Your task to perform on an android device: Do I have any events today? Image 0: 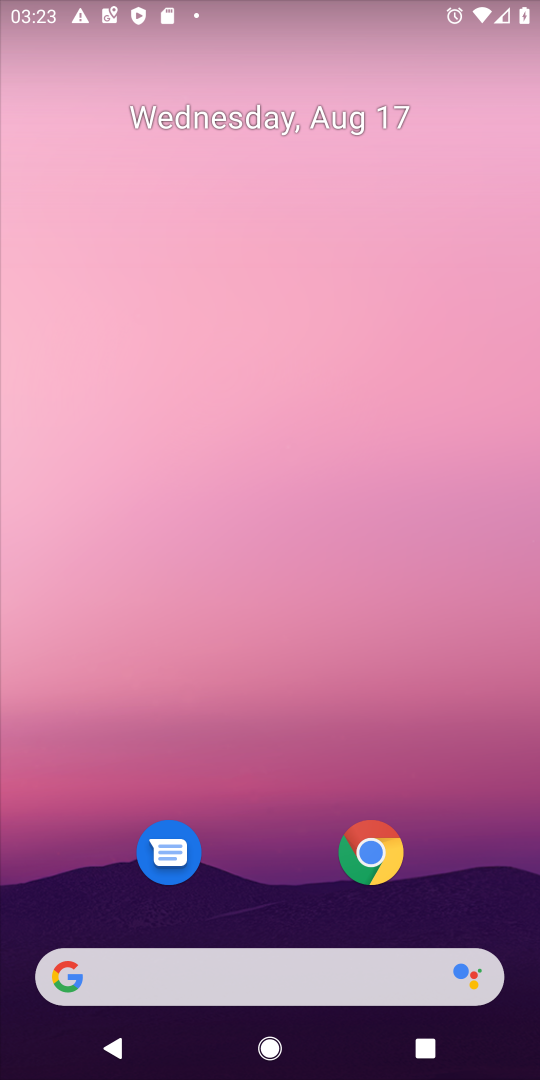
Step 0: drag from (245, 853) to (295, 0)
Your task to perform on an android device: Do I have any events today? Image 1: 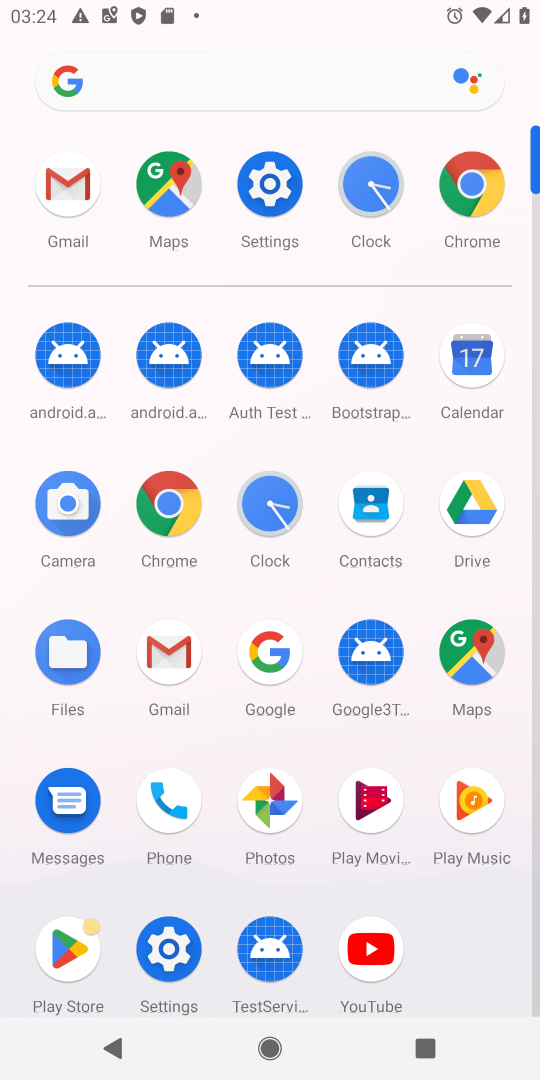
Step 1: click (480, 361)
Your task to perform on an android device: Do I have any events today? Image 2: 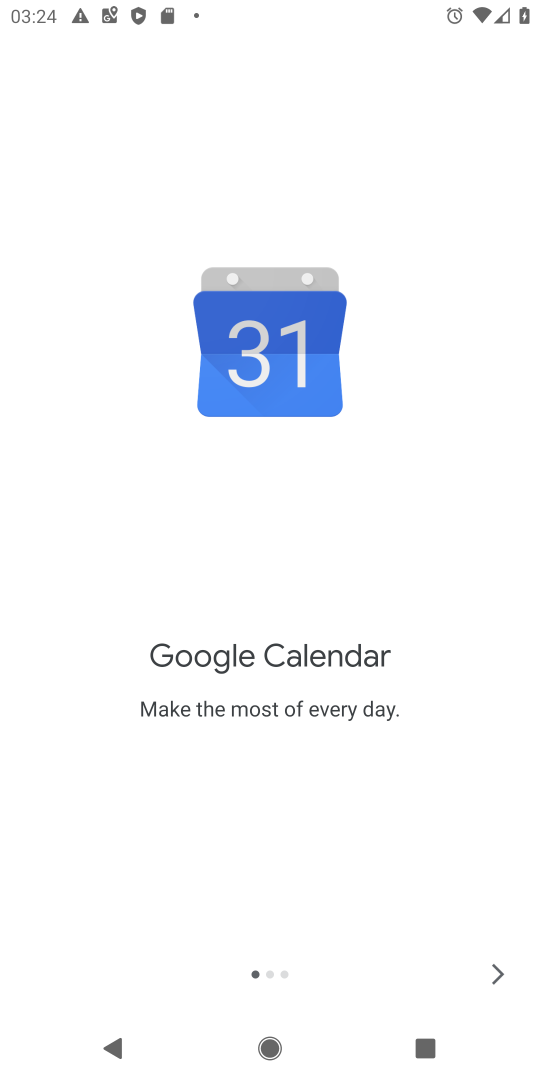
Step 2: click (508, 976)
Your task to perform on an android device: Do I have any events today? Image 3: 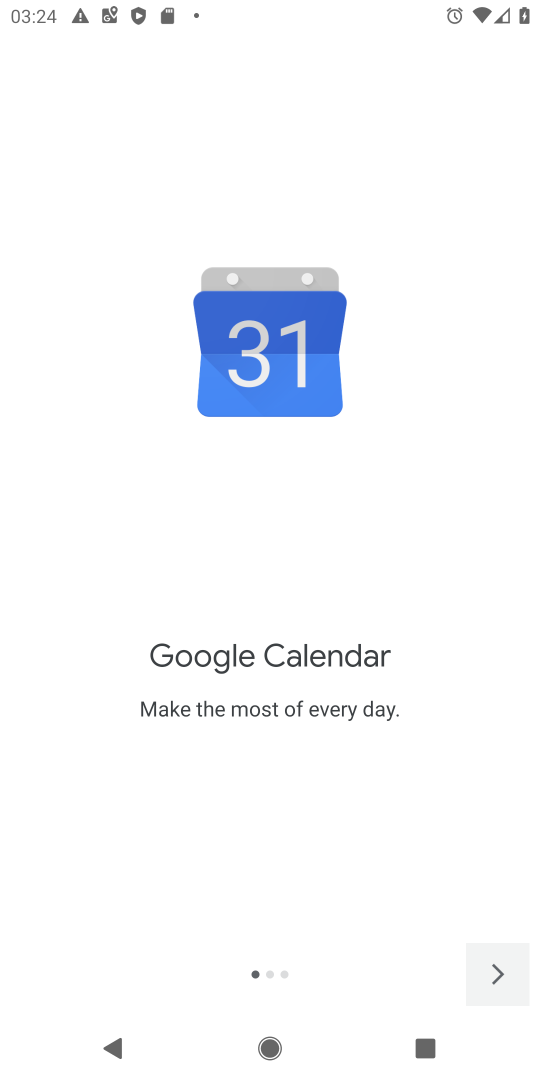
Step 3: click (508, 976)
Your task to perform on an android device: Do I have any events today? Image 4: 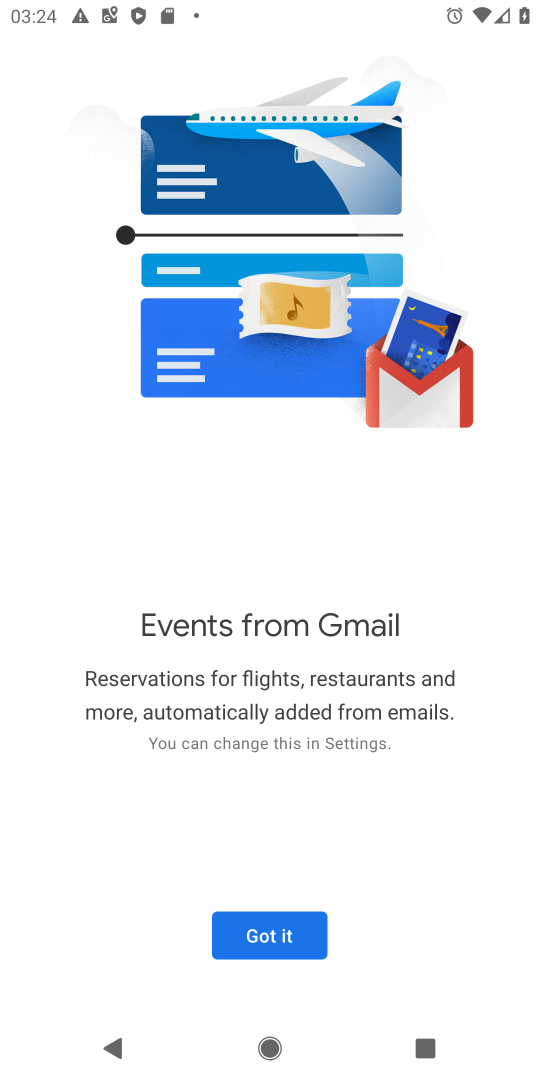
Step 4: click (309, 942)
Your task to perform on an android device: Do I have any events today? Image 5: 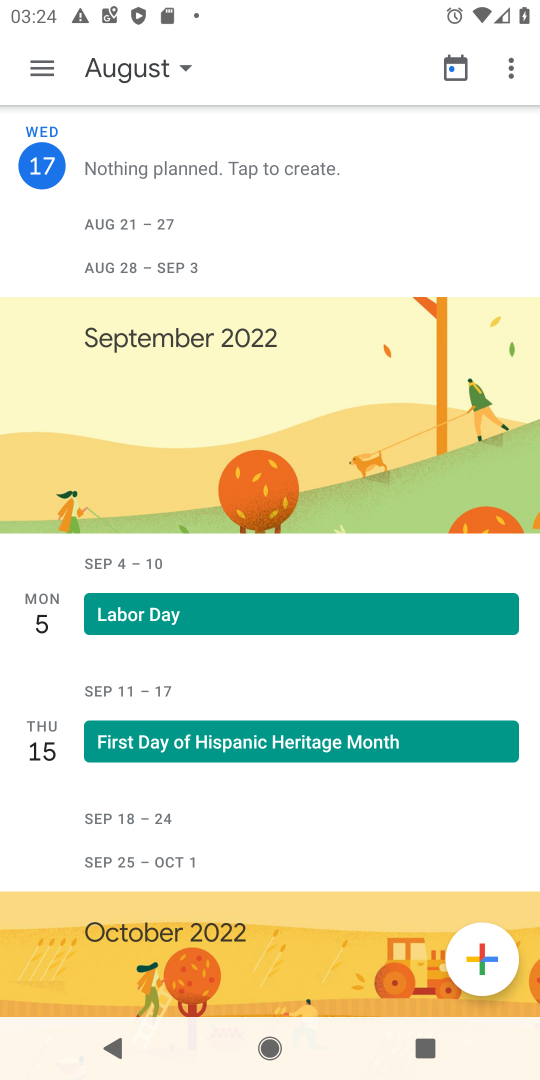
Step 5: task complete